Your task to perform on an android device: Go to Yahoo.com Image 0: 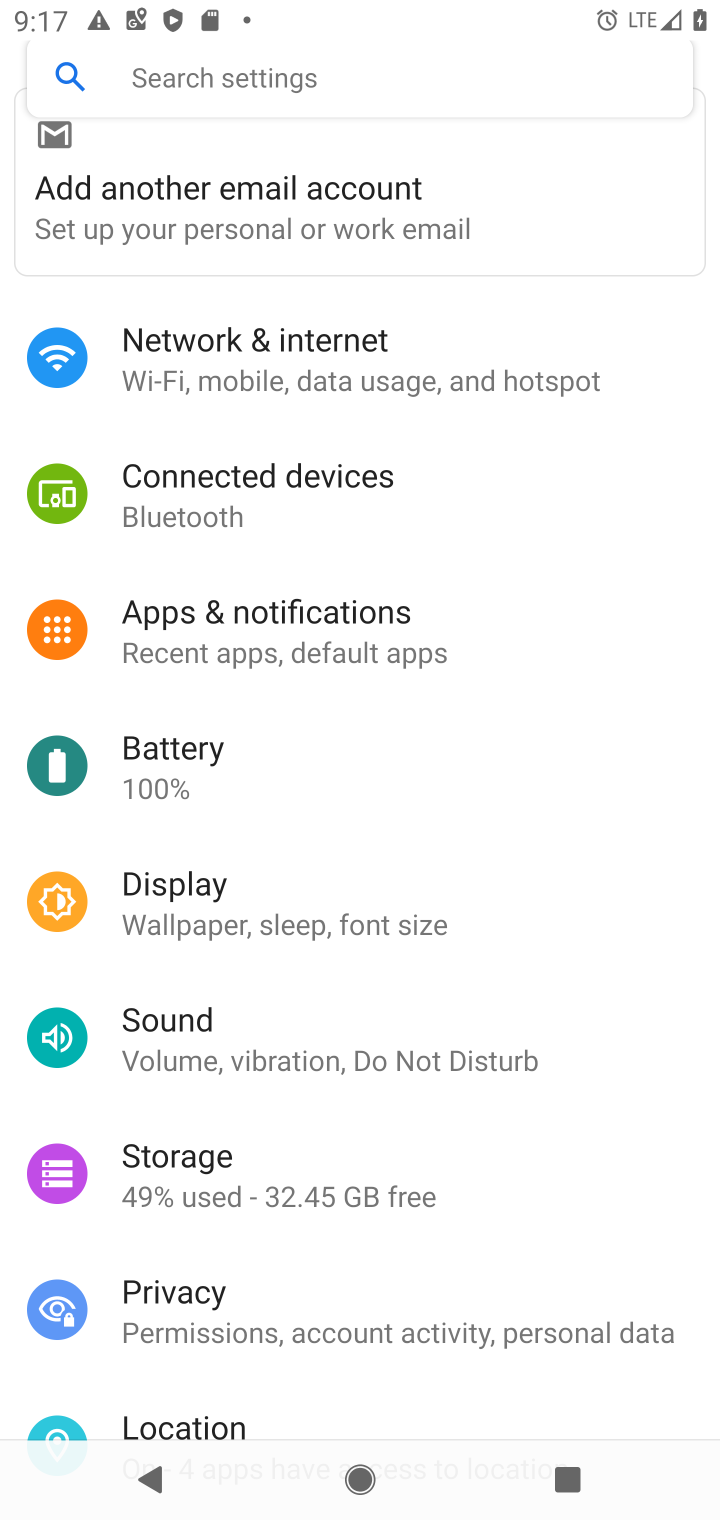
Step 0: press home button
Your task to perform on an android device: Go to Yahoo.com Image 1: 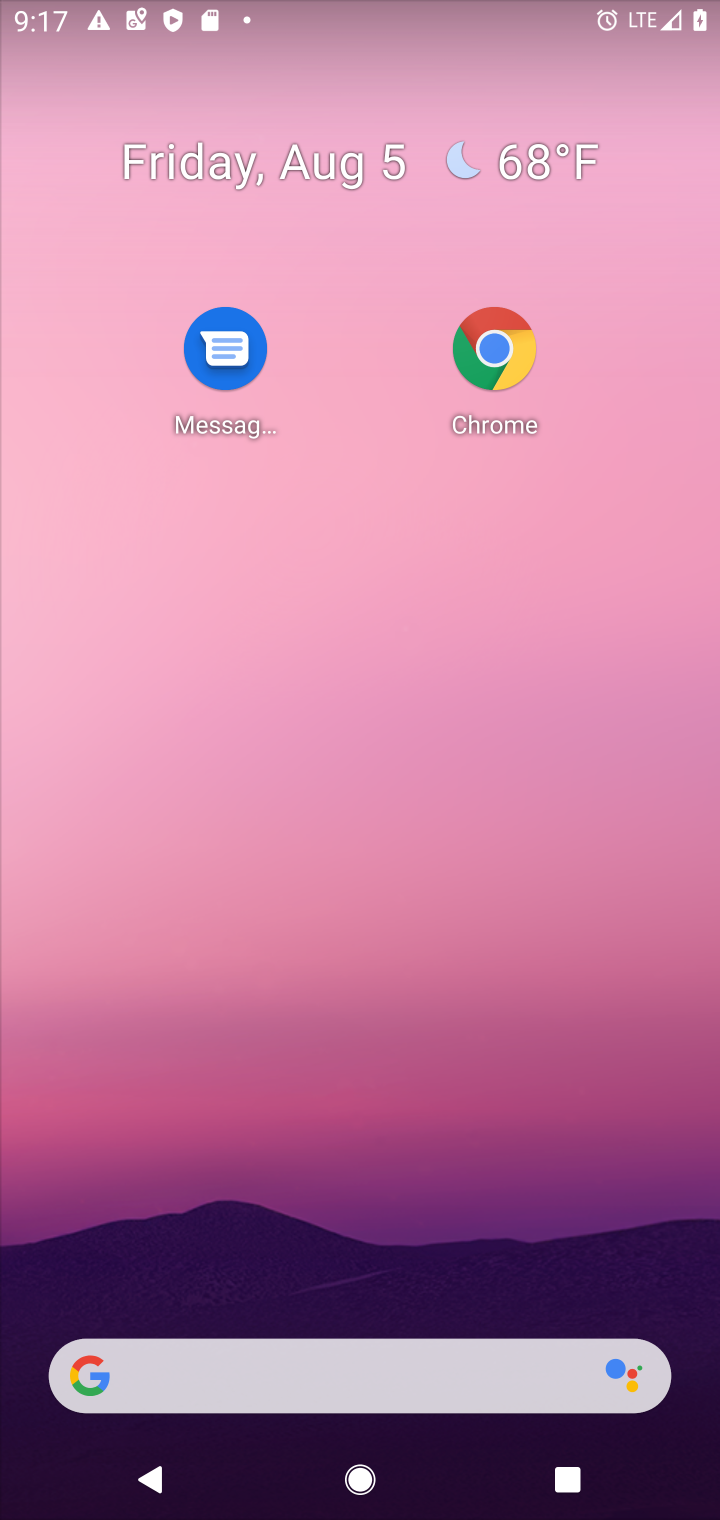
Step 1: drag from (487, 1401) to (332, 525)
Your task to perform on an android device: Go to Yahoo.com Image 2: 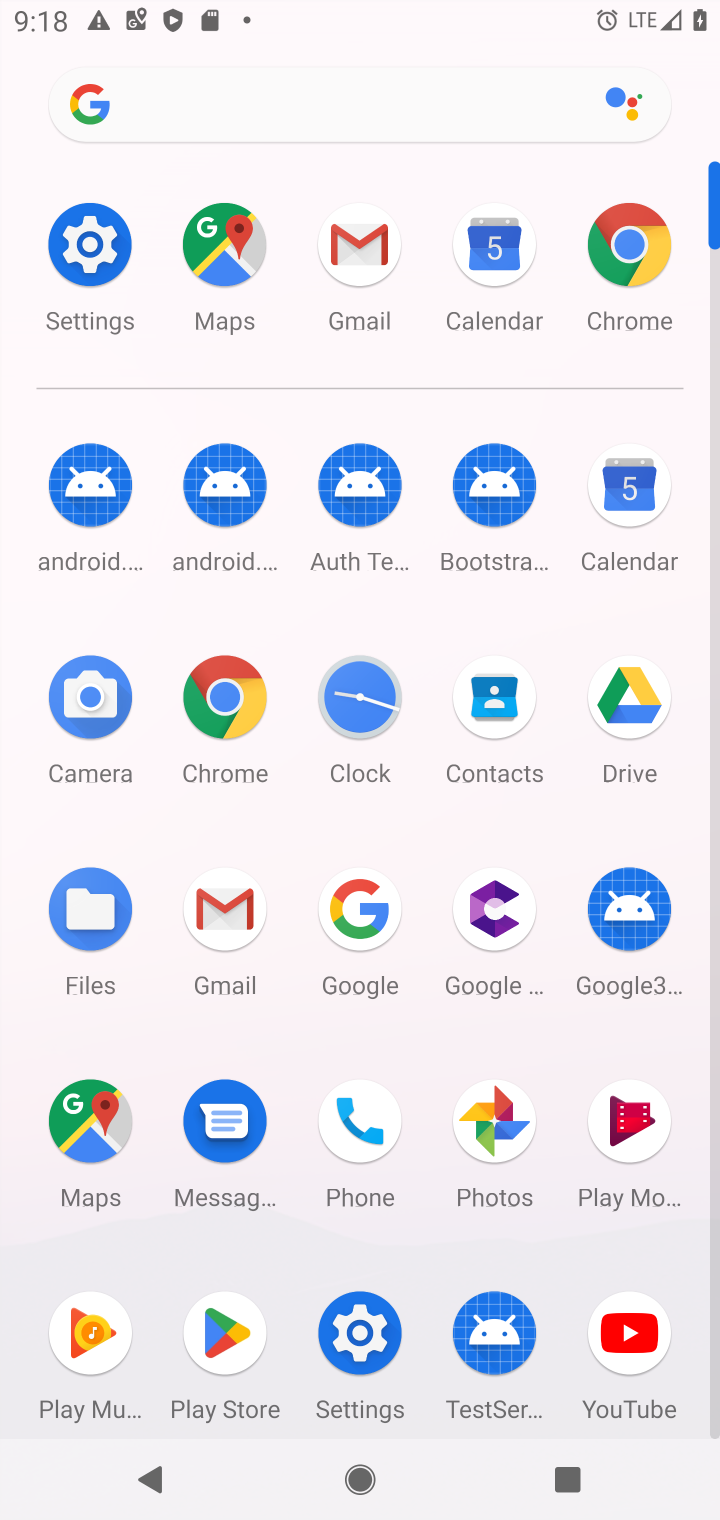
Step 2: click (624, 265)
Your task to perform on an android device: Go to Yahoo.com Image 3: 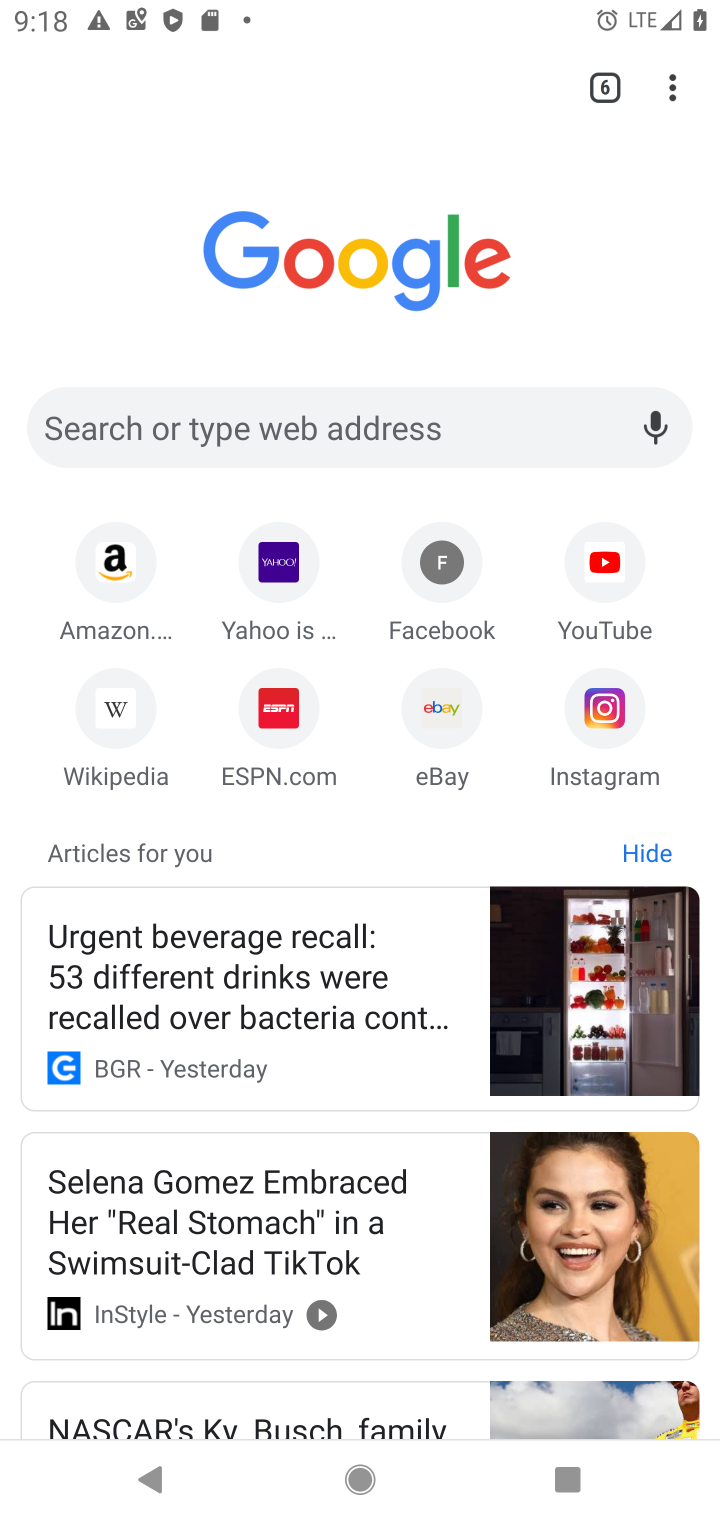
Step 3: click (262, 571)
Your task to perform on an android device: Go to Yahoo.com Image 4: 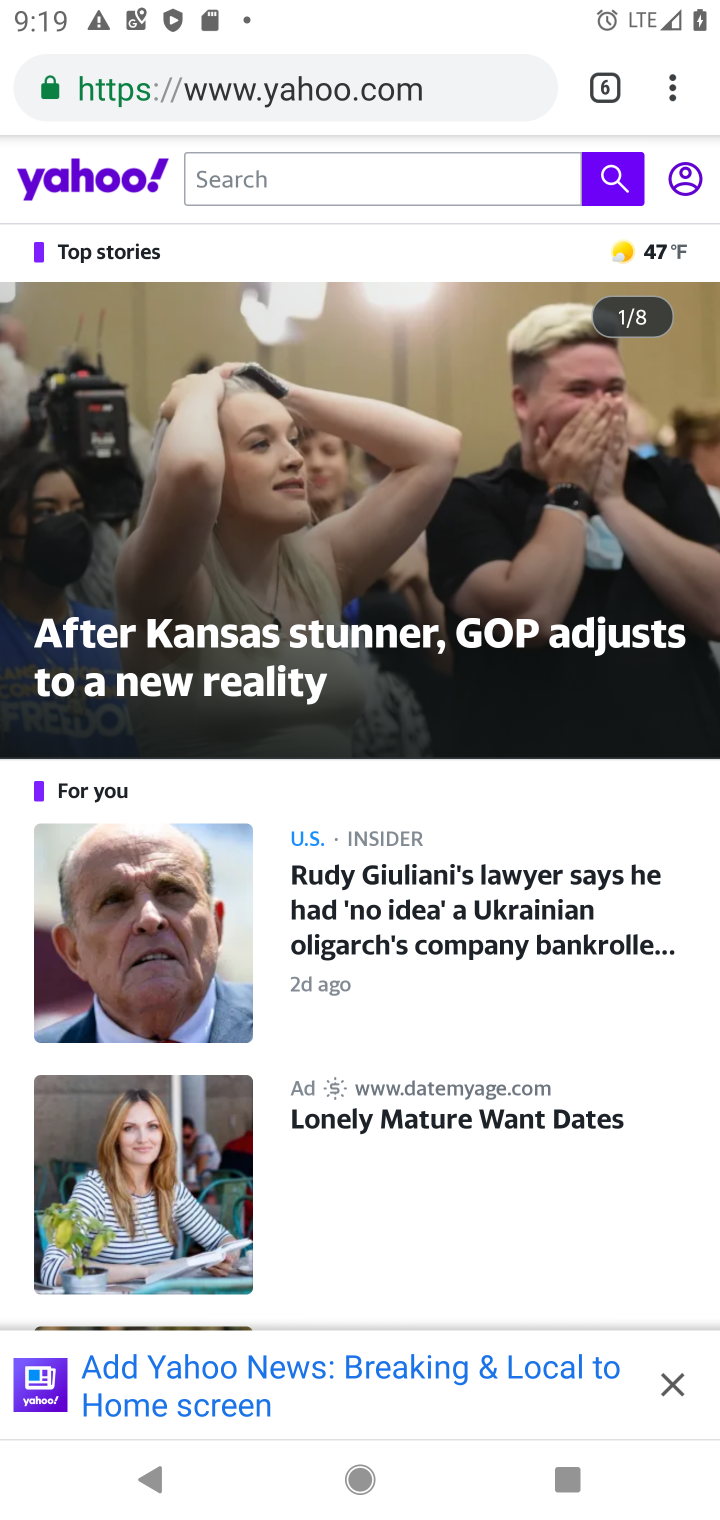
Step 4: task complete